Your task to perform on an android device: install app "Microsoft Authenticator" Image 0: 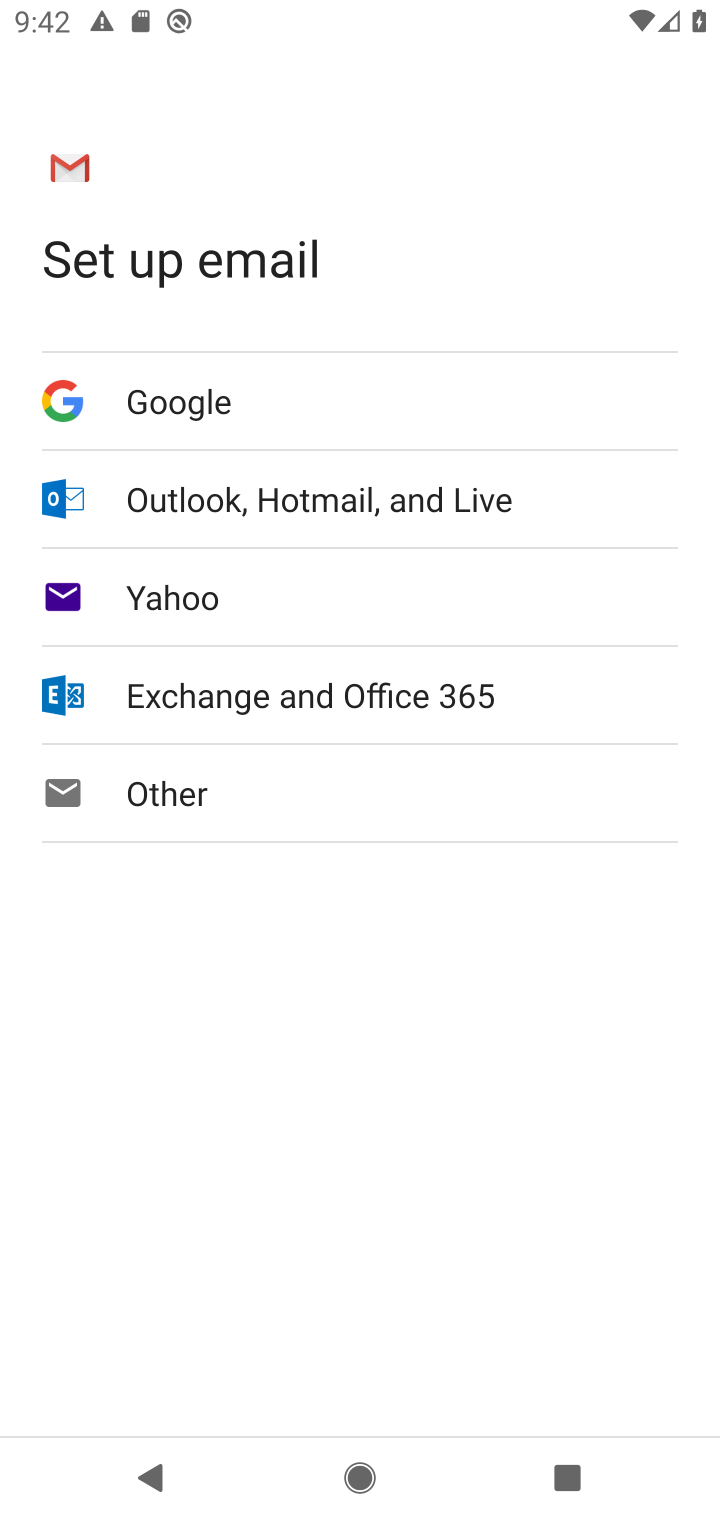
Step 0: press home button
Your task to perform on an android device: install app "Microsoft Authenticator" Image 1: 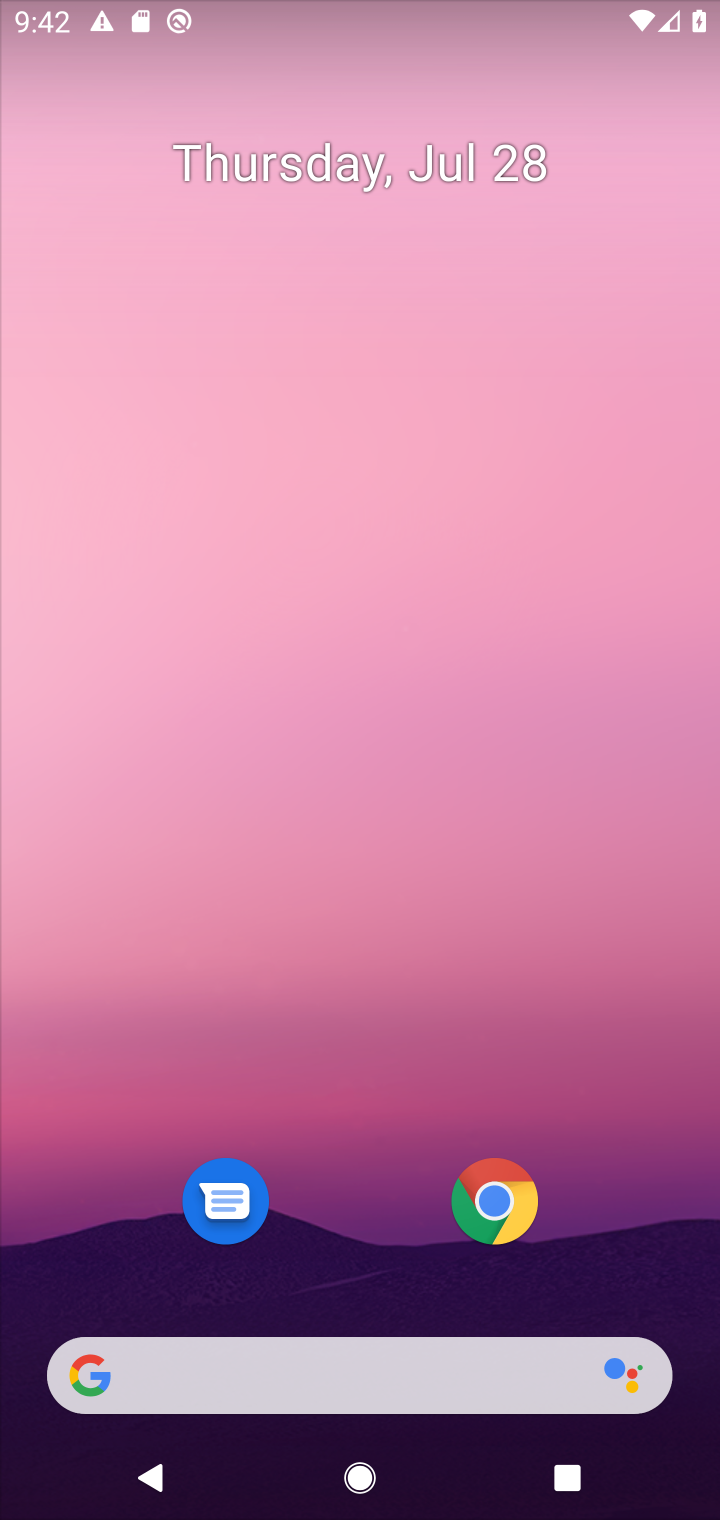
Step 1: drag from (335, 1221) to (31, 106)
Your task to perform on an android device: install app "Microsoft Authenticator" Image 2: 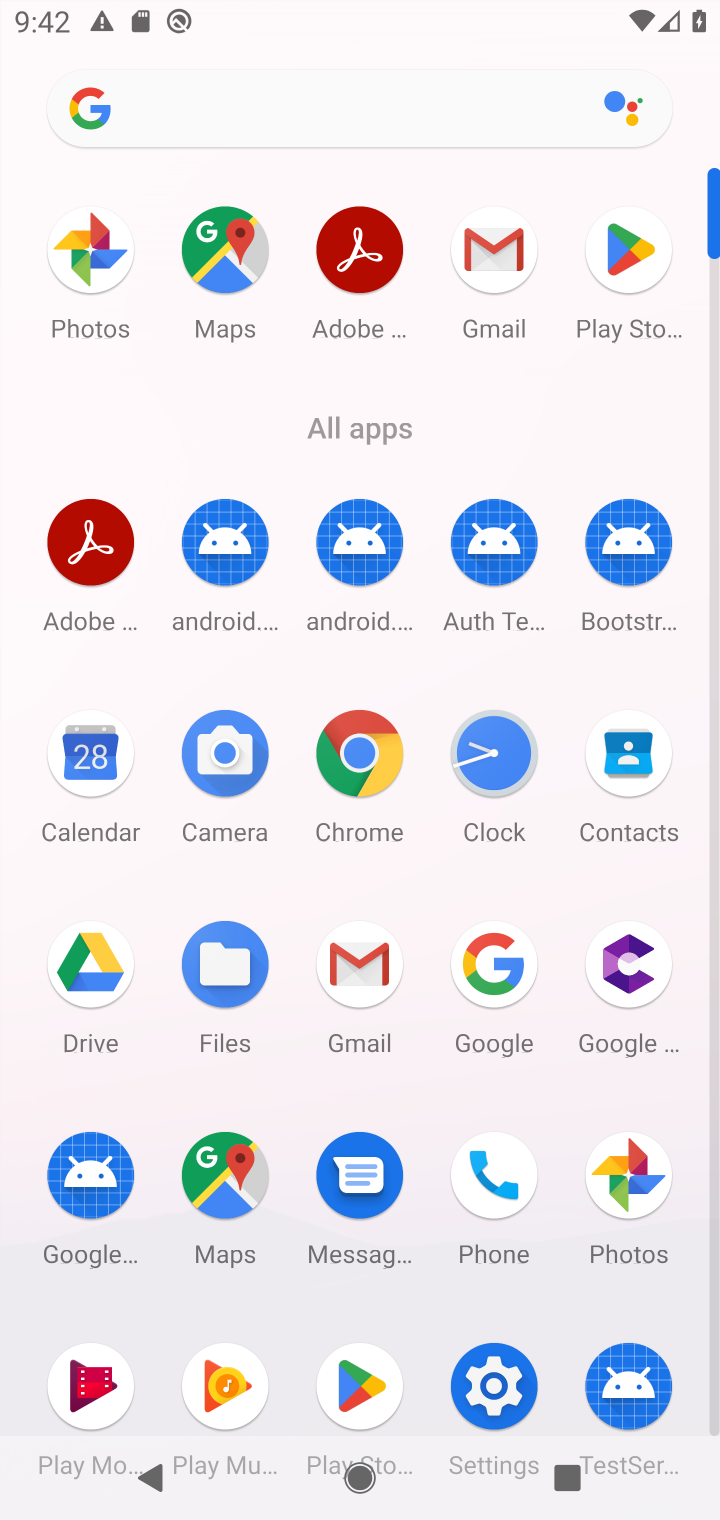
Step 2: click (629, 294)
Your task to perform on an android device: install app "Microsoft Authenticator" Image 3: 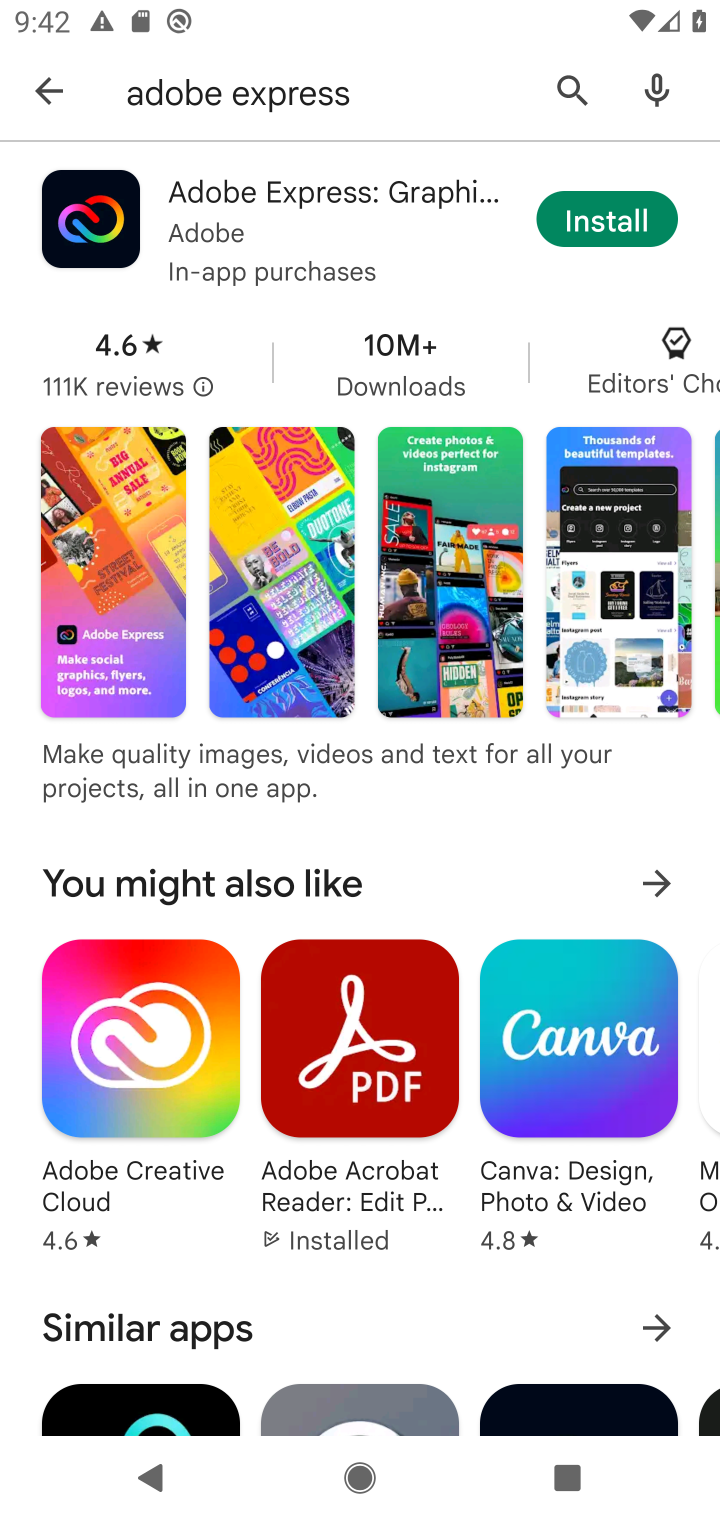
Step 3: click (263, 111)
Your task to perform on an android device: install app "Microsoft Authenticator" Image 4: 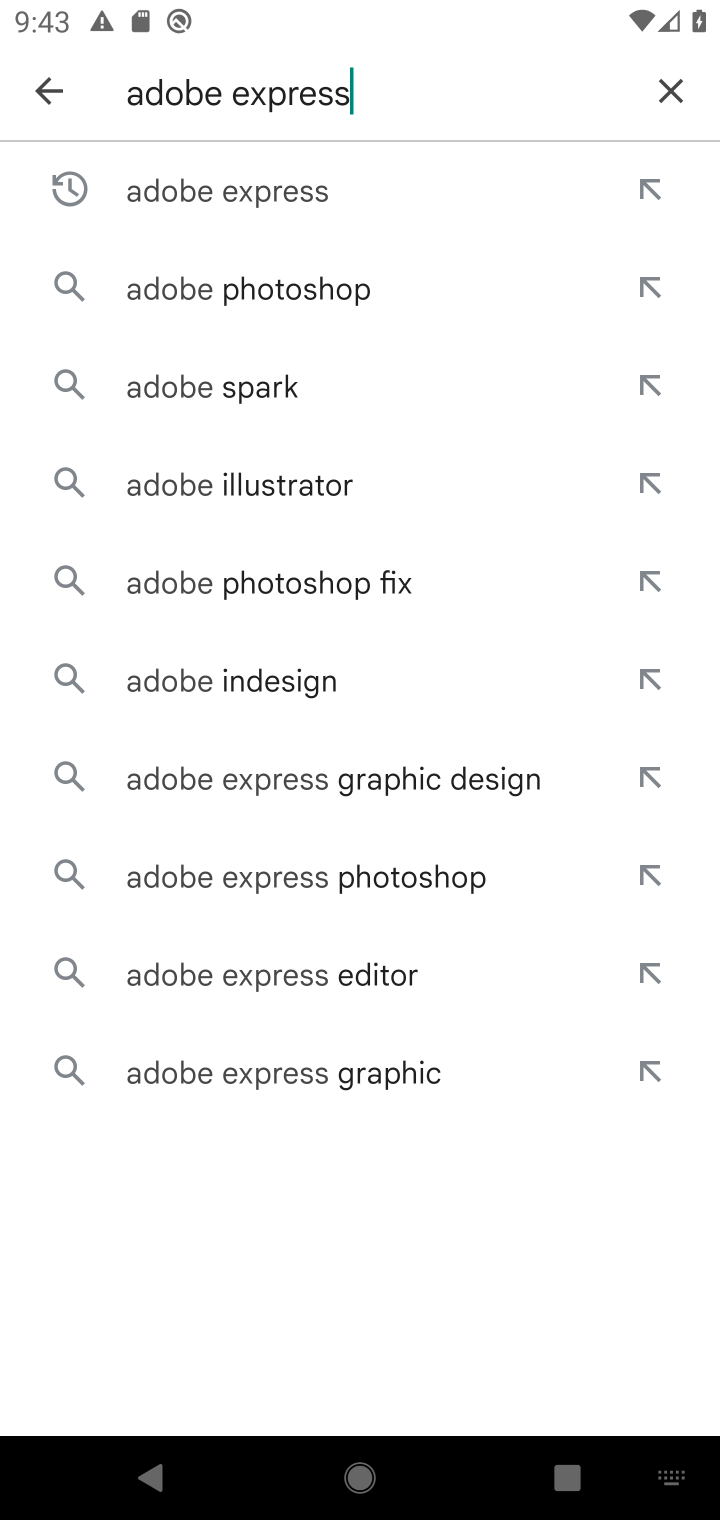
Step 4: click (663, 81)
Your task to perform on an android device: install app "Microsoft Authenticator" Image 5: 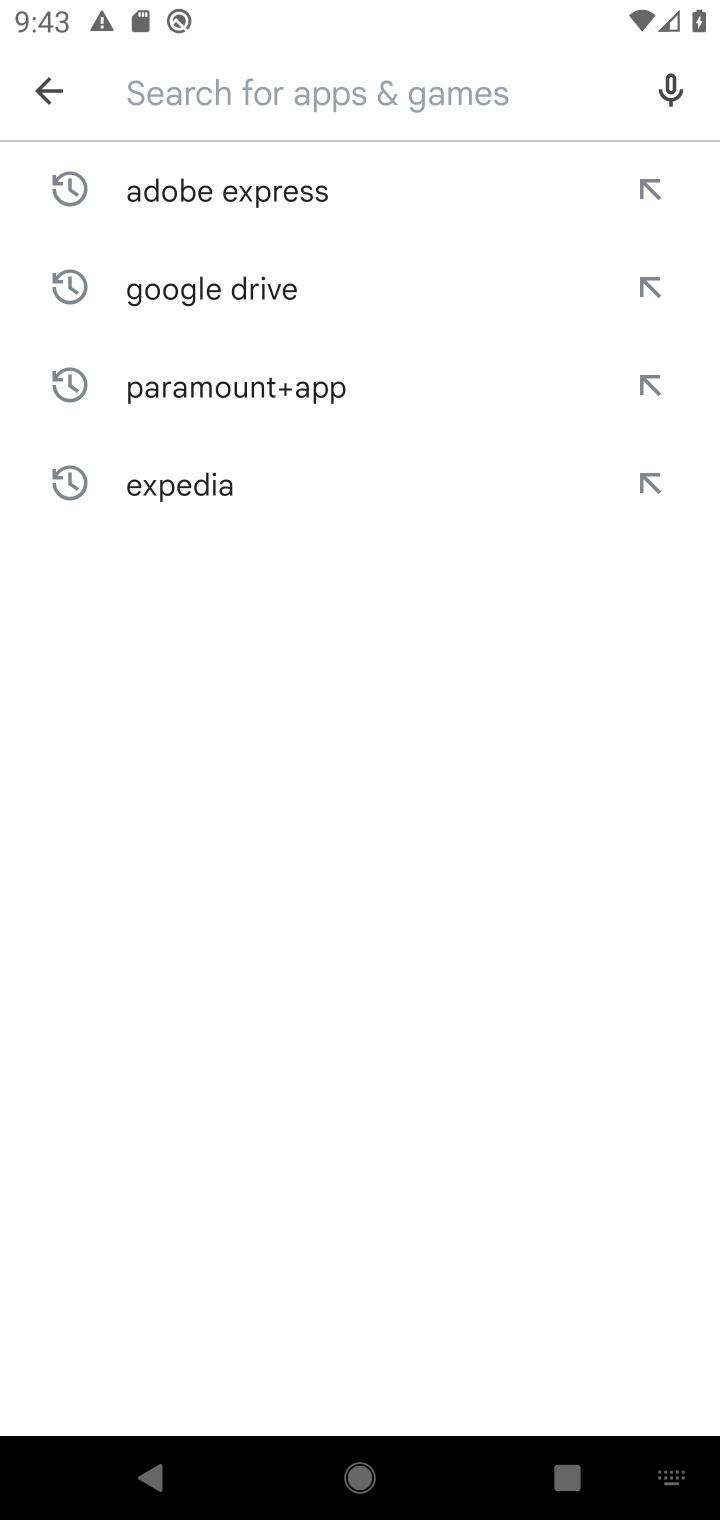
Step 5: type "microsoft Authenticator"
Your task to perform on an android device: install app "Microsoft Authenticator" Image 6: 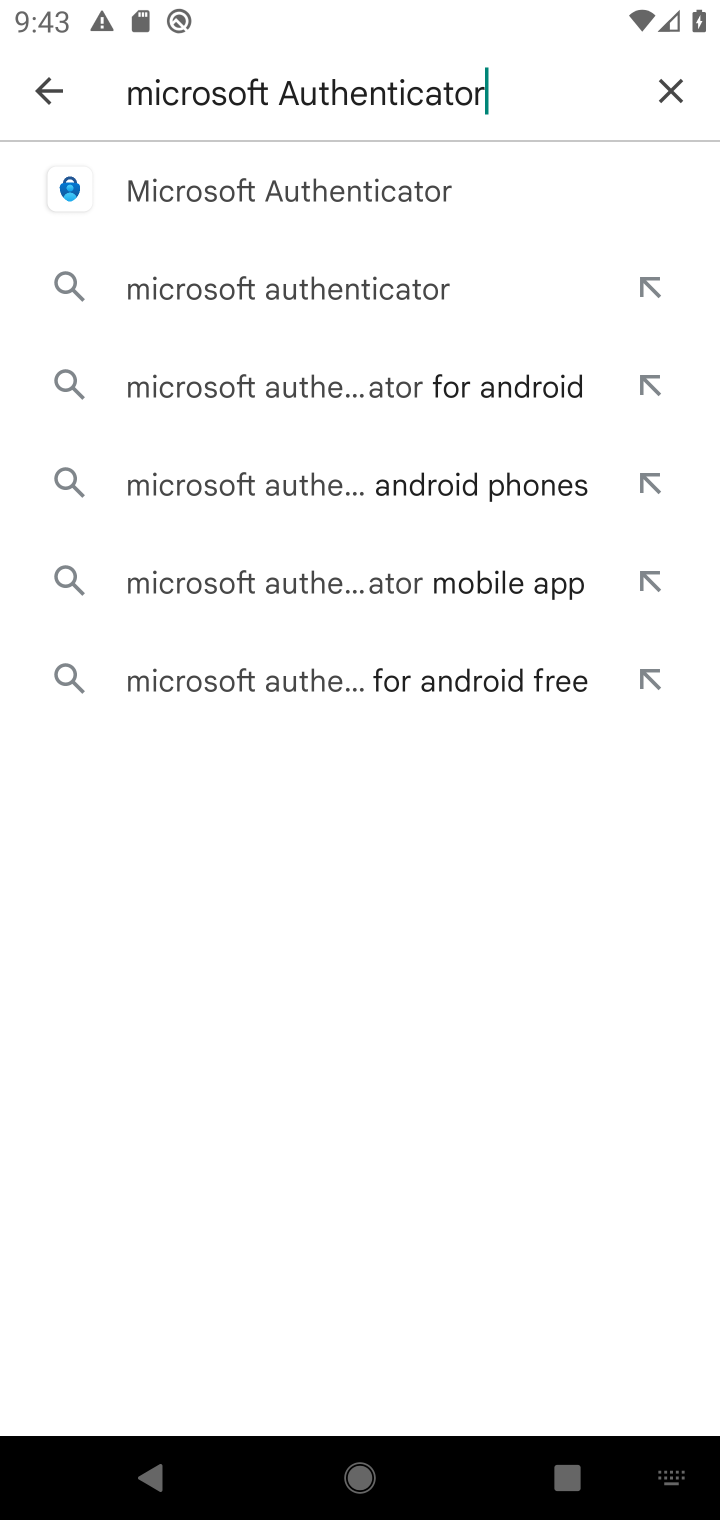
Step 6: click (261, 221)
Your task to perform on an android device: install app "Microsoft Authenticator" Image 7: 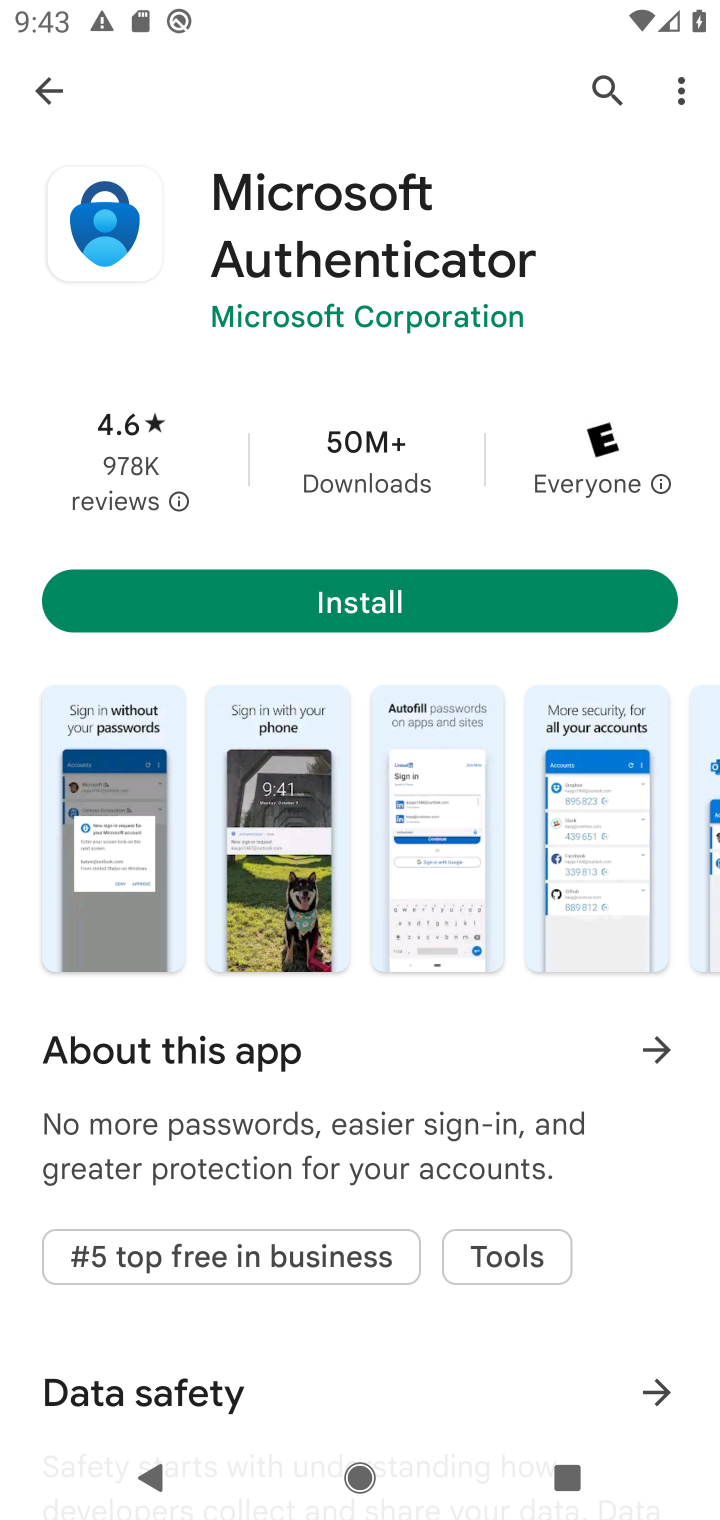
Step 7: click (366, 614)
Your task to perform on an android device: install app "Microsoft Authenticator" Image 8: 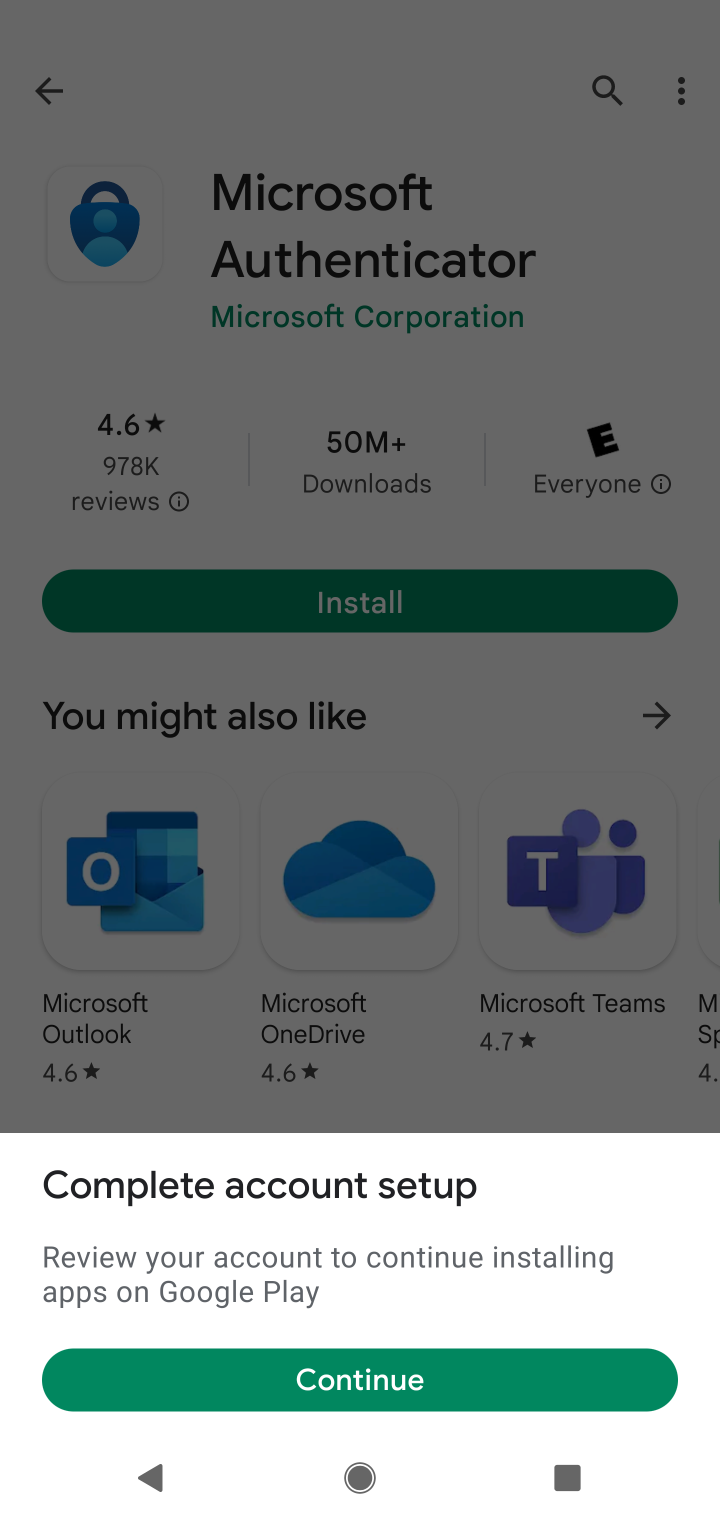
Step 8: click (417, 1371)
Your task to perform on an android device: install app "Microsoft Authenticator" Image 9: 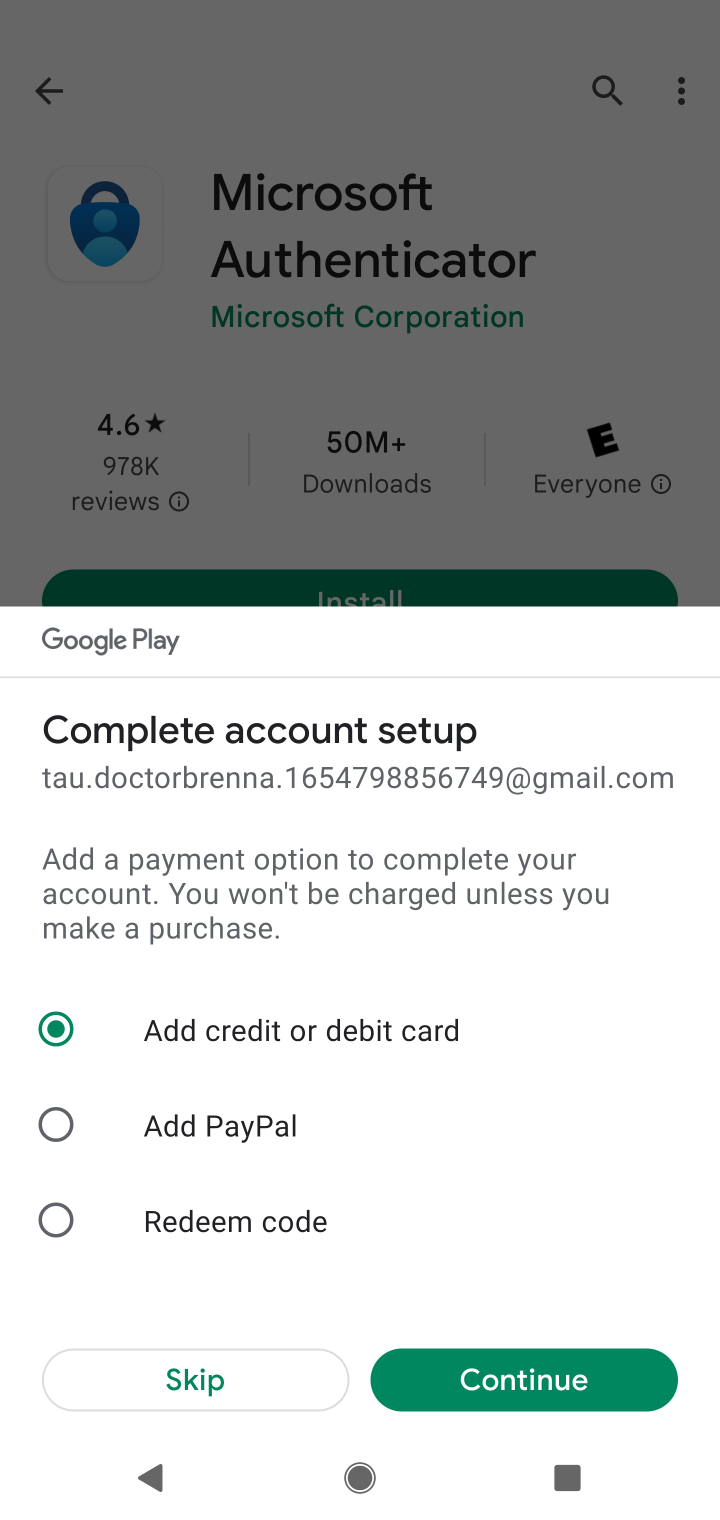
Step 9: click (270, 1377)
Your task to perform on an android device: install app "Microsoft Authenticator" Image 10: 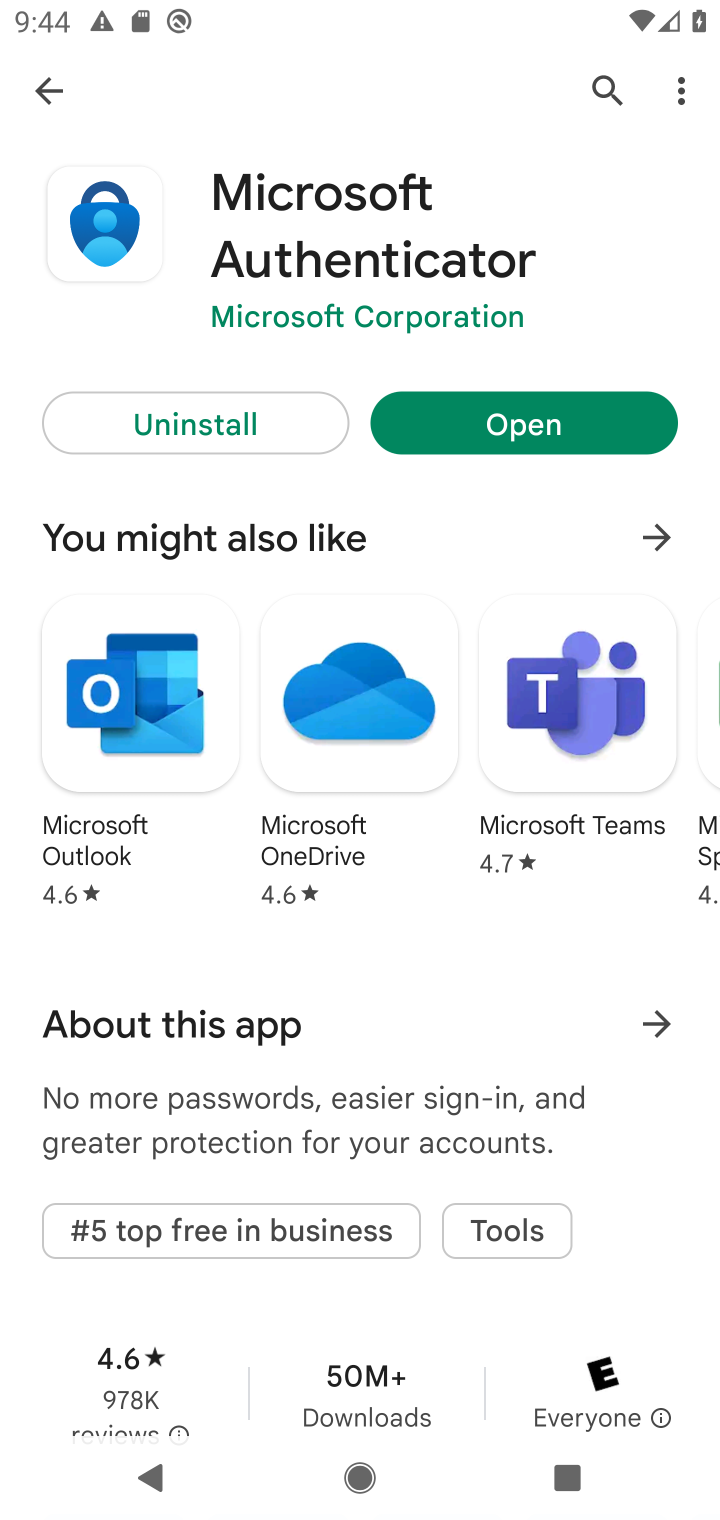
Step 10: task complete